Your task to perform on an android device: See recent photos Image 0: 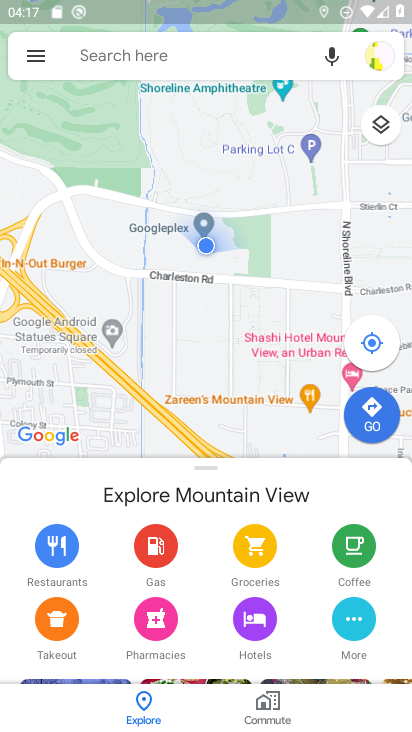
Step 0: press home button
Your task to perform on an android device: See recent photos Image 1: 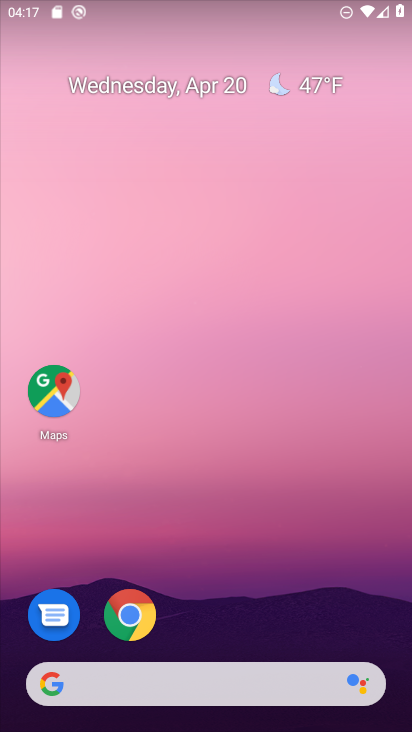
Step 1: drag from (213, 578) to (284, 57)
Your task to perform on an android device: See recent photos Image 2: 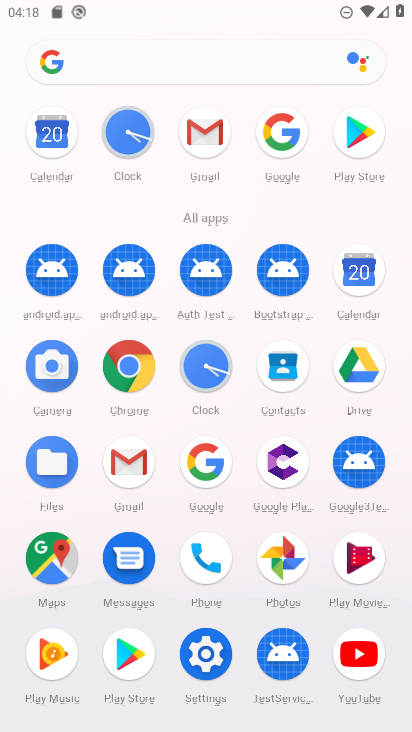
Step 2: click (281, 548)
Your task to perform on an android device: See recent photos Image 3: 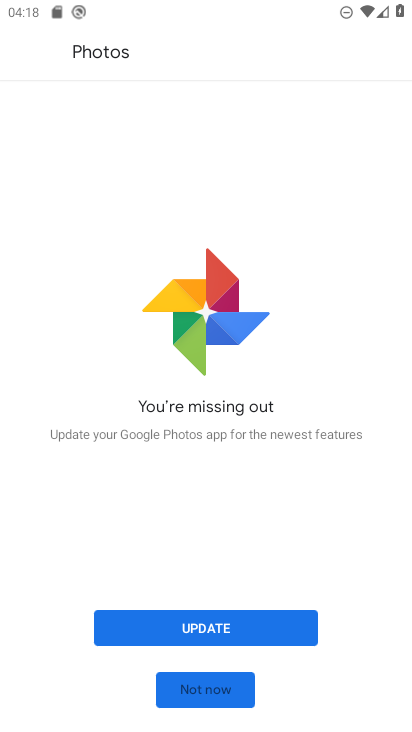
Step 3: click (220, 685)
Your task to perform on an android device: See recent photos Image 4: 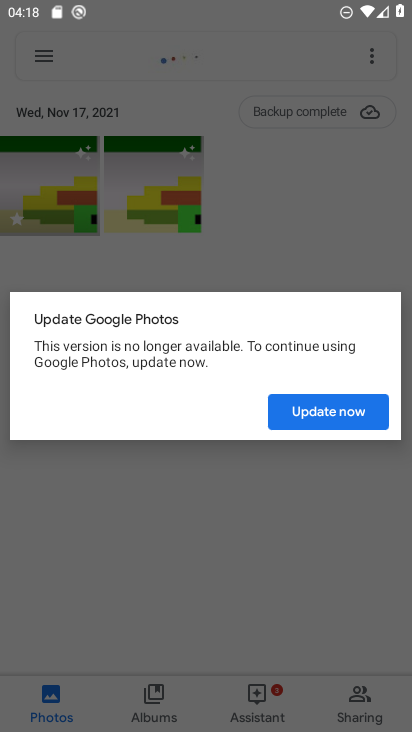
Step 4: click (45, 153)
Your task to perform on an android device: See recent photos Image 5: 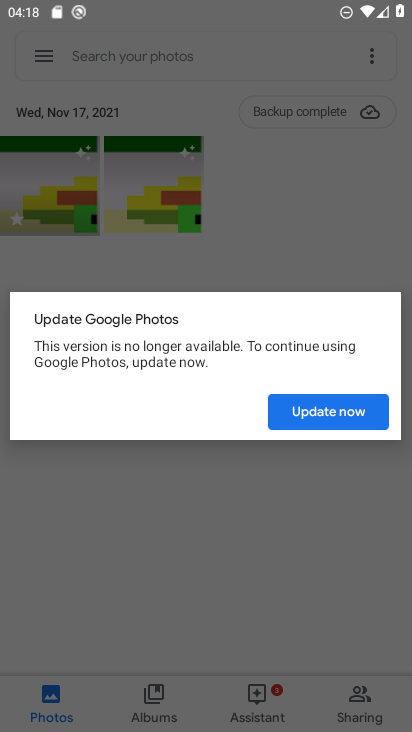
Step 5: task complete